Your task to perform on an android device: move an email to a new category in the gmail app Image 0: 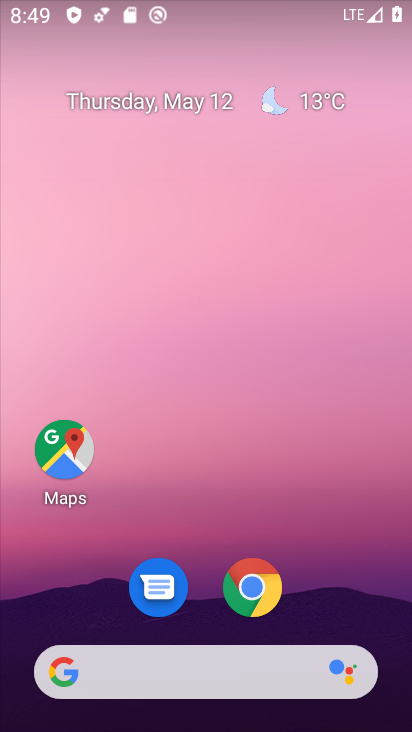
Step 0: drag from (335, 564) to (11, 179)
Your task to perform on an android device: move an email to a new category in the gmail app Image 1: 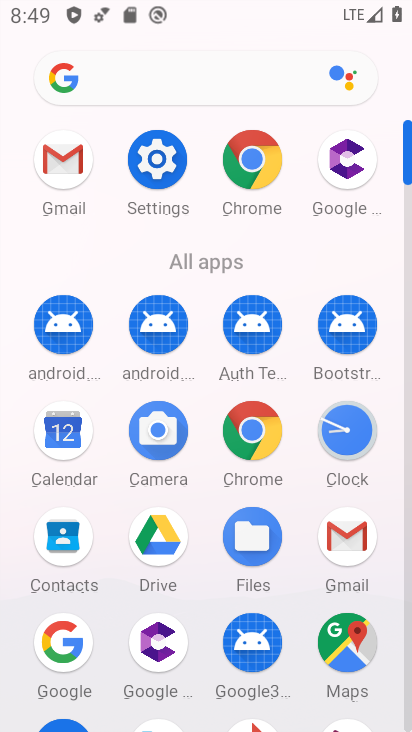
Step 1: click (60, 167)
Your task to perform on an android device: move an email to a new category in the gmail app Image 2: 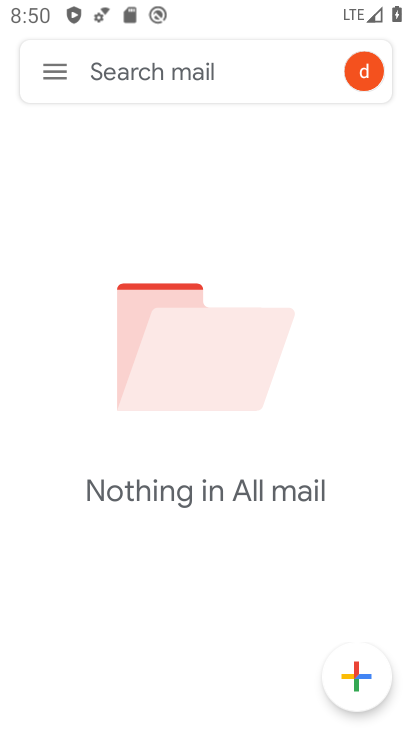
Step 2: task complete